Your task to perform on an android device: Go to Maps Image 0: 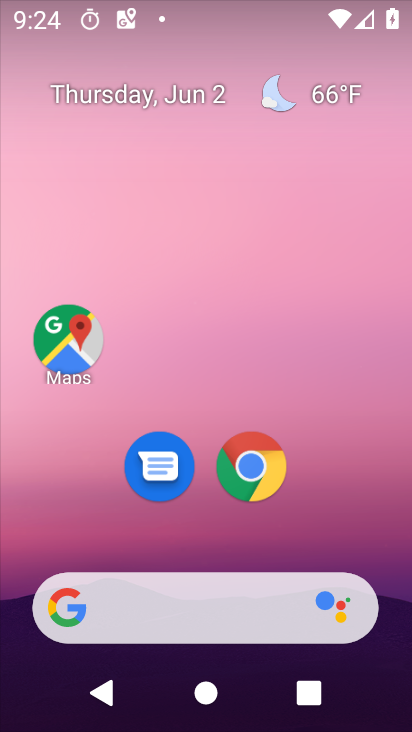
Step 0: click (87, 330)
Your task to perform on an android device: Go to Maps Image 1: 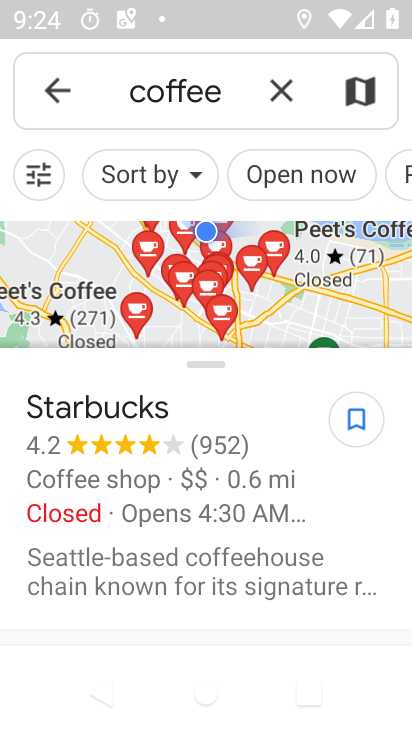
Step 1: click (286, 97)
Your task to perform on an android device: Go to Maps Image 2: 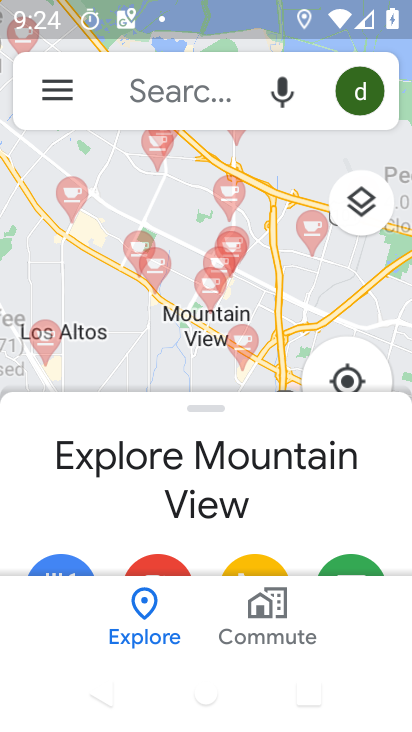
Step 2: click (50, 90)
Your task to perform on an android device: Go to Maps Image 3: 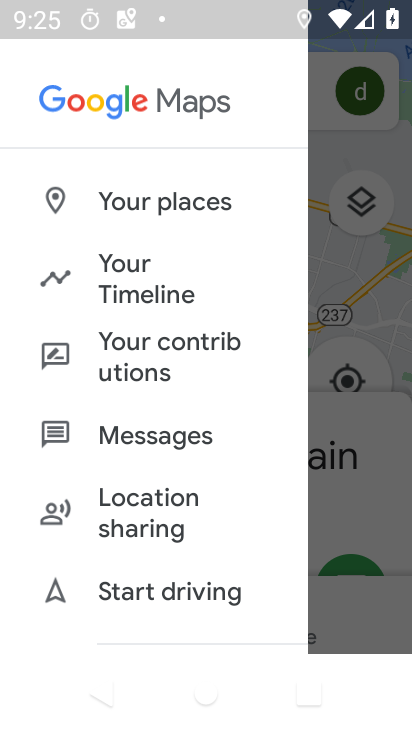
Step 3: task complete